Your task to perform on an android device: change timer sound Image 0: 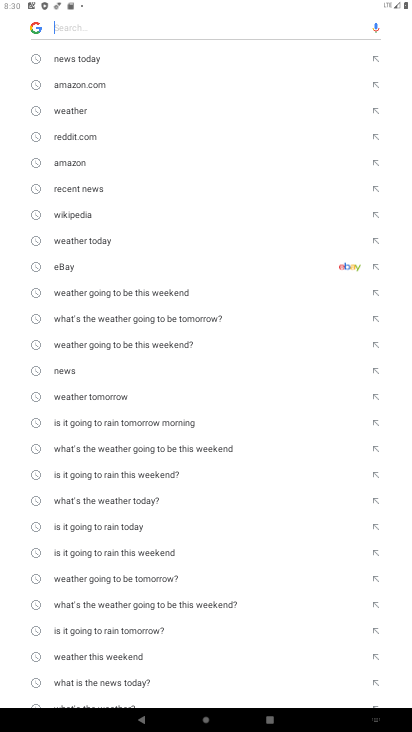
Step 0: press home button
Your task to perform on an android device: change timer sound Image 1: 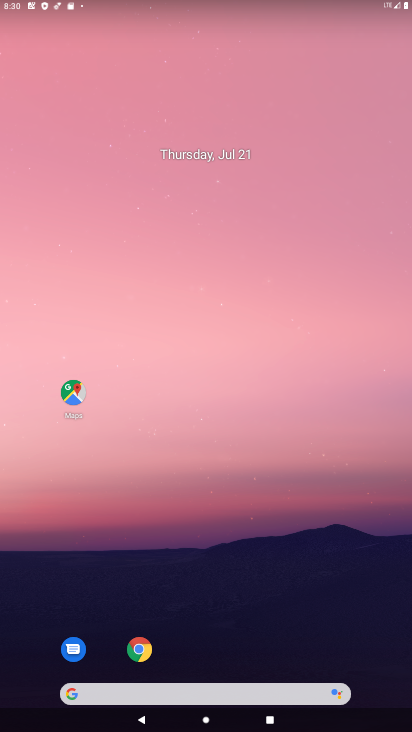
Step 1: drag from (179, 620) to (236, 212)
Your task to perform on an android device: change timer sound Image 2: 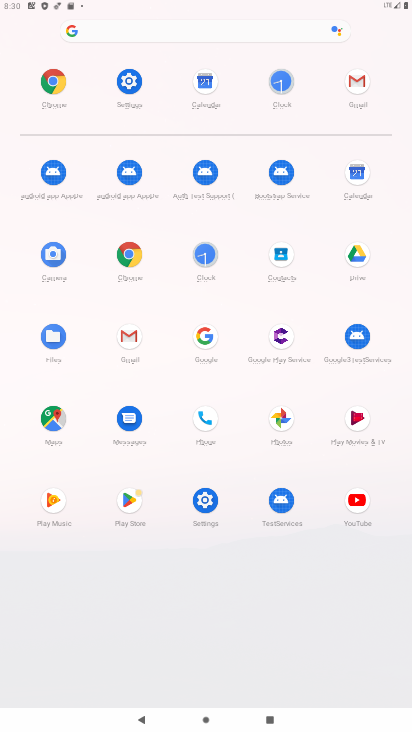
Step 2: click (207, 272)
Your task to perform on an android device: change timer sound Image 3: 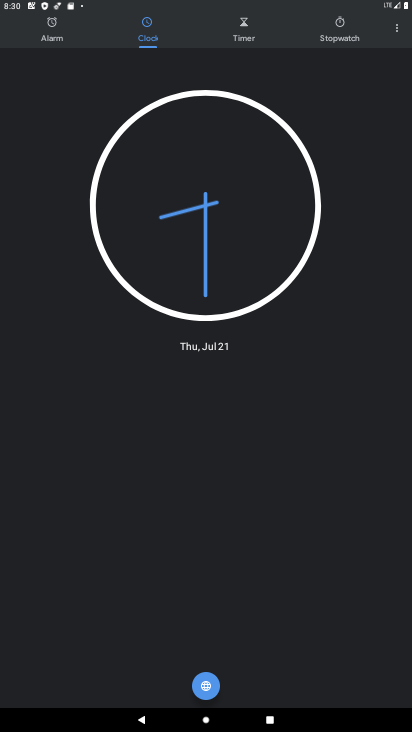
Step 3: click (395, 27)
Your task to perform on an android device: change timer sound Image 4: 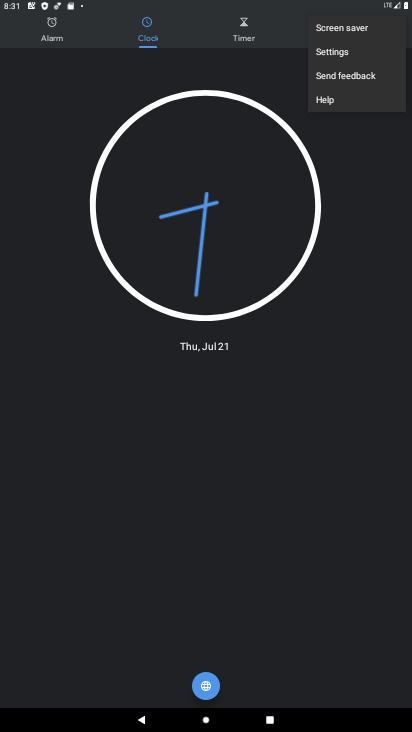
Step 4: click (329, 54)
Your task to perform on an android device: change timer sound Image 5: 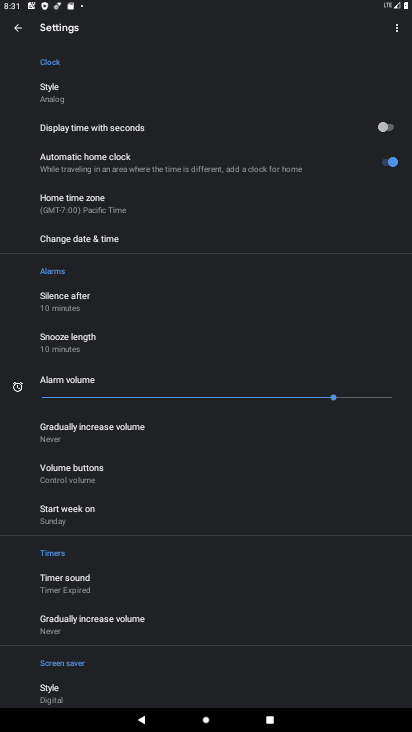
Step 5: click (41, 100)
Your task to perform on an android device: change timer sound Image 6: 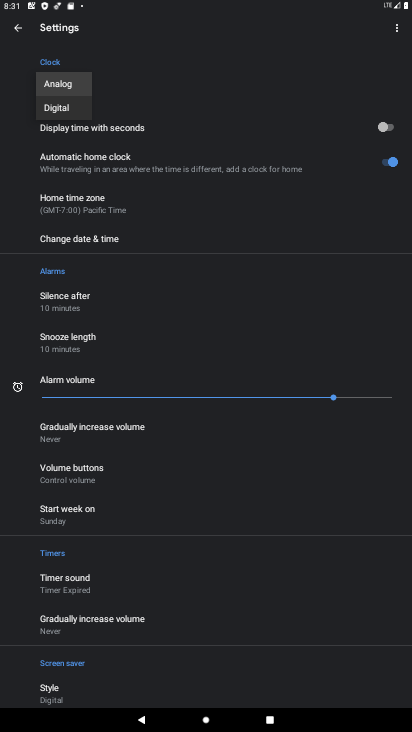
Step 6: click (56, 112)
Your task to perform on an android device: change timer sound Image 7: 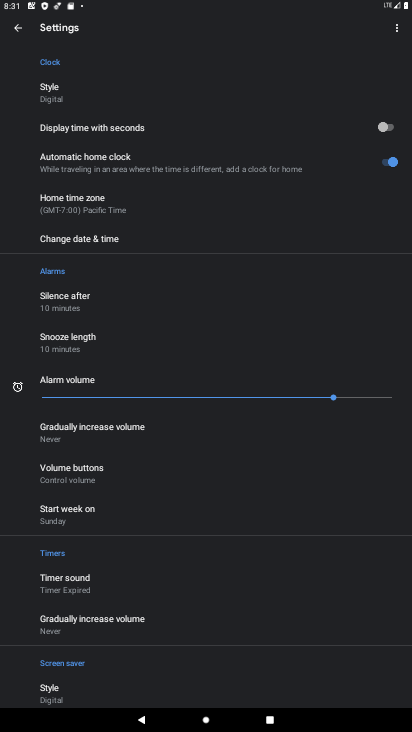
Step 7: task complete